Your task to perform on an android device: turn pop-ups on in chrome Image 0: 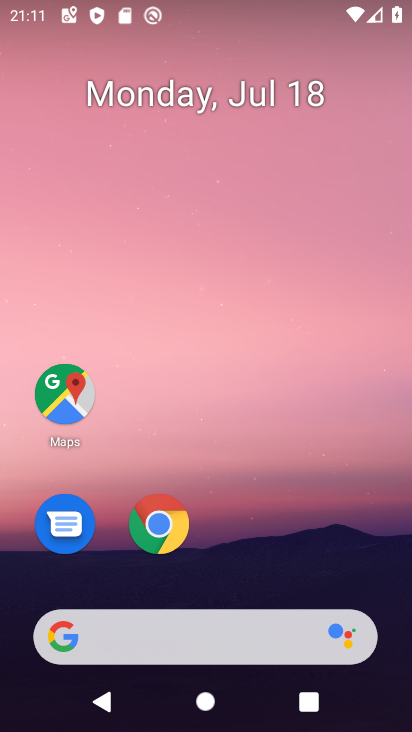
Step 0: drag from (271, 497) to (271, 307)
Your task to perform on an android device: turn pop-ups on in chrome Image 1: 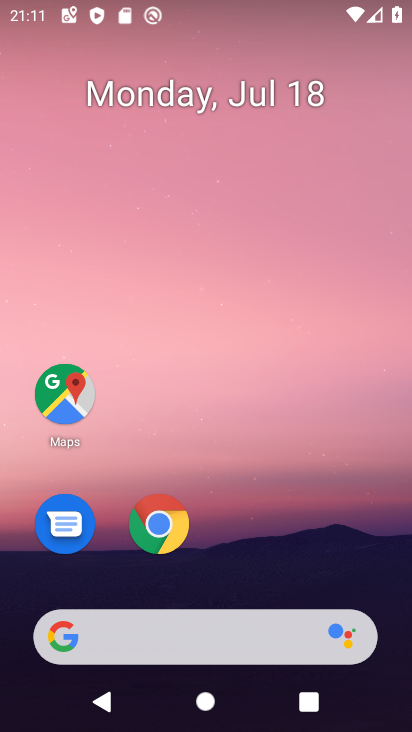
Step 1: click (162, 535)
Your task to perform on an android device: turn pop-ups on in chrome Image 2: 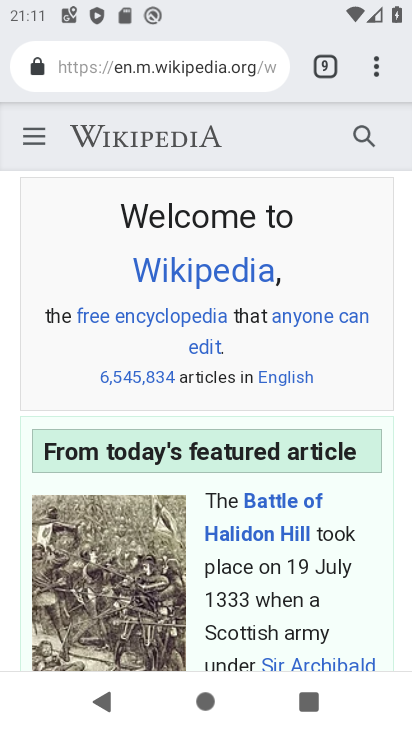
Step 2: click (374, 72)
Your task to perform on an android device: turn pop-ups on in chrome Image 3: 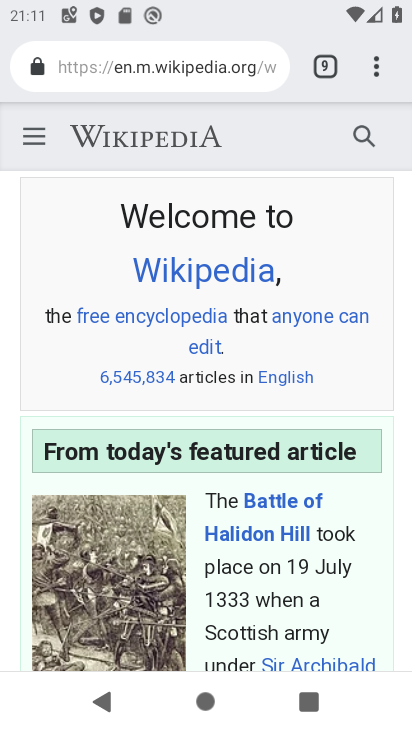
Step 3: click (374, 72)
Your task to perform on an android device: turn pop-ups on in chrome Image 4: 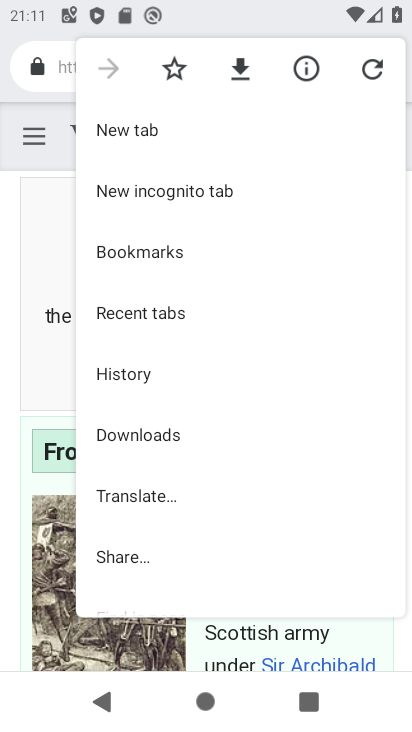
Step 4: drag from (264, 498) to (242, 145)
Your task to perform on an android device: turn pop-ups on in chrome Image 5: 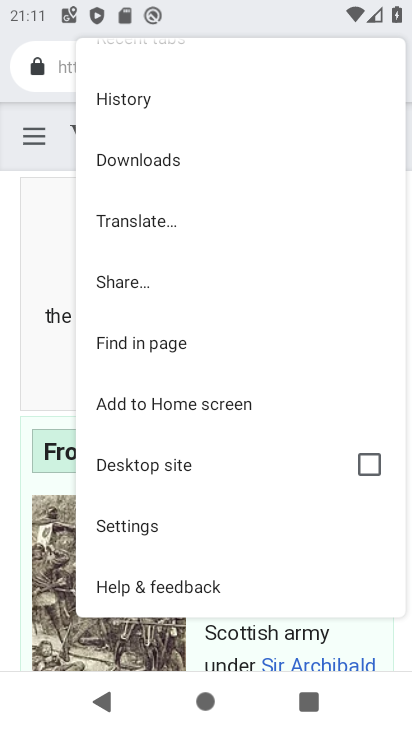
Step 5: click (162, 521)
Your task to perform on an android device: turn pop-ups on in chrome Image 6: 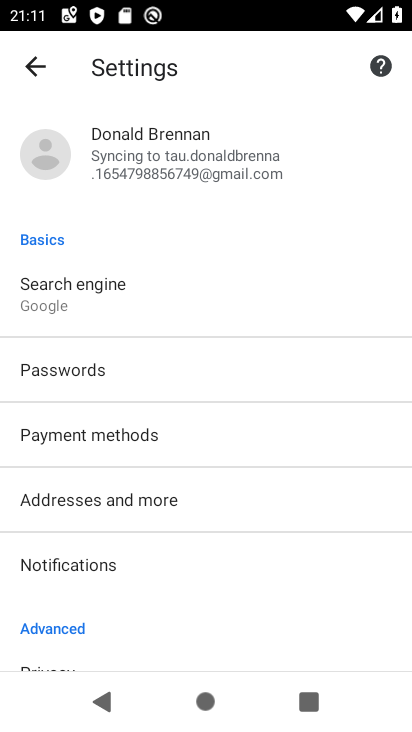
Step 6: drag from (237, 555) to (226, 299)
Your task to perform on an android device: turn pop-ups on in chrome Image 7: 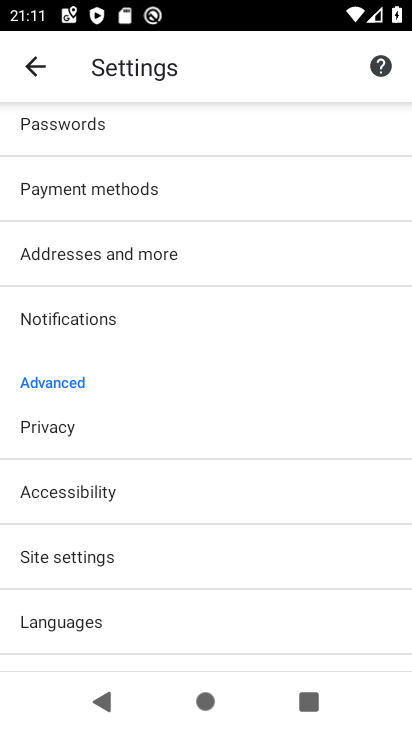
Step 7: click (153, 562)
Your task to perform on an android device: turn pop-ups on in chrome Image 8: 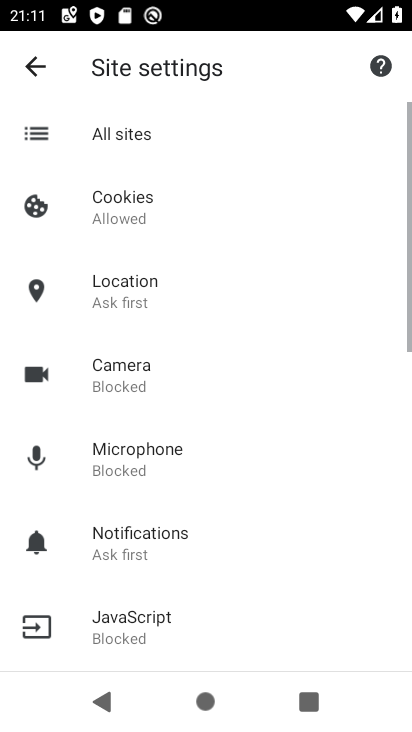
Step 8: drag from (246, 552) to (257, 317)
Your task to perform on an android device: turn pop-ups on in chrome Image 9: 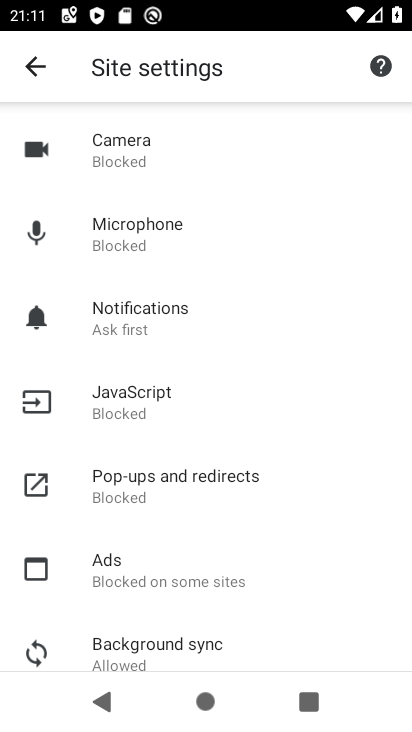
Step 9: click (224, 485)
Your task to perform on an android device: turn pop-ups on in chrome Image 10: 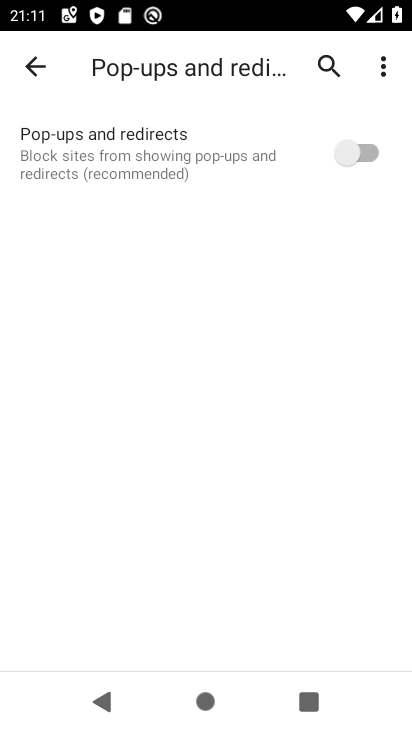
Step 10: click (360, 145)
Your task to perform on an android device: turn pop-ups on in chrome Image 11: 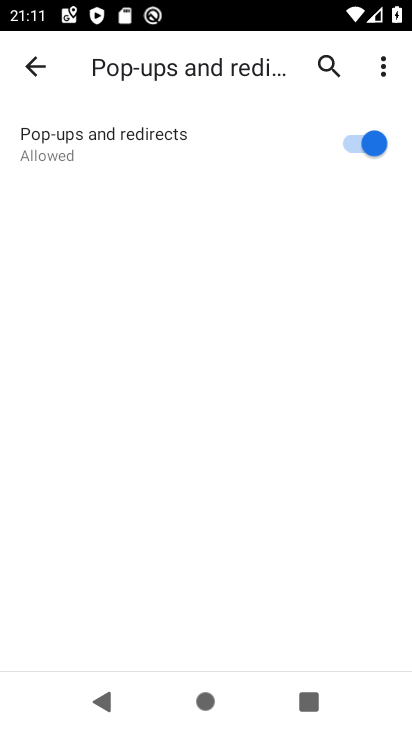
Step 11: task complete